Your task to perform on an android device: Open location settings Image 0: 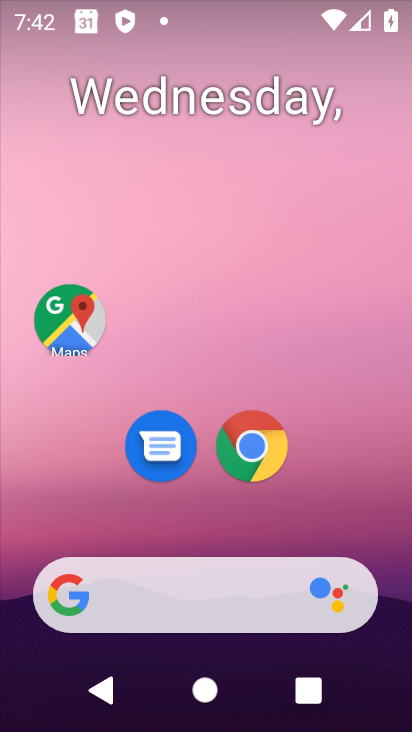
Step 0: drag from (320, 260) to (288, 66)
Your task to perform on an android device: Open location settings Image 1: 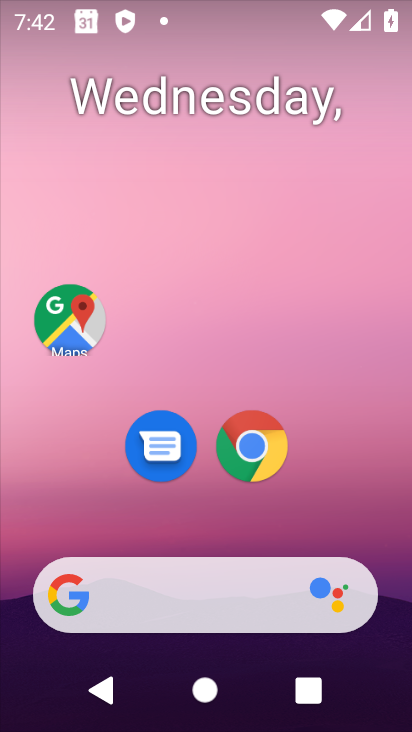
Step 1: drag from (362, 565) to (312, 88)
Your task to perform on an android device: Open location settings Image 2: 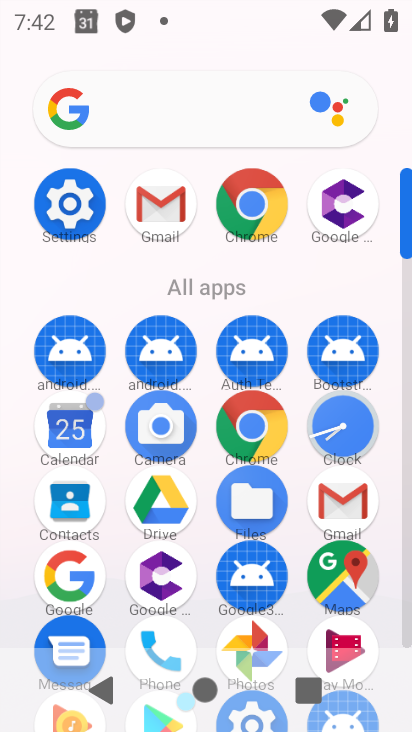
Step 2: click (93, 205)
Your task to perform on an android device: Open location settings Image 3: 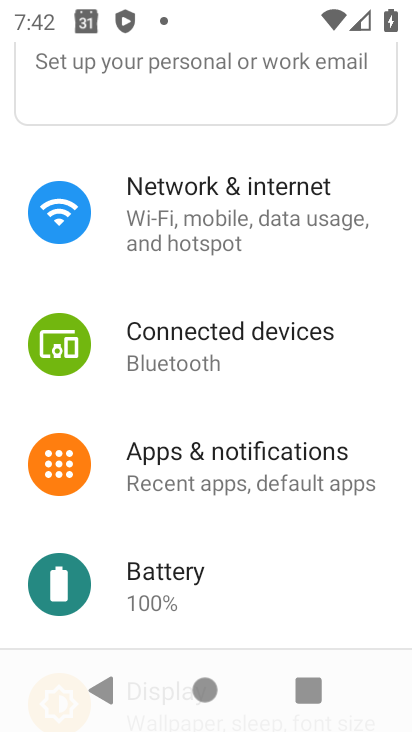
Step 3: drag from (106, 527) to (106, 93)
Your task to perform on an android device: Open location settings Image 4: 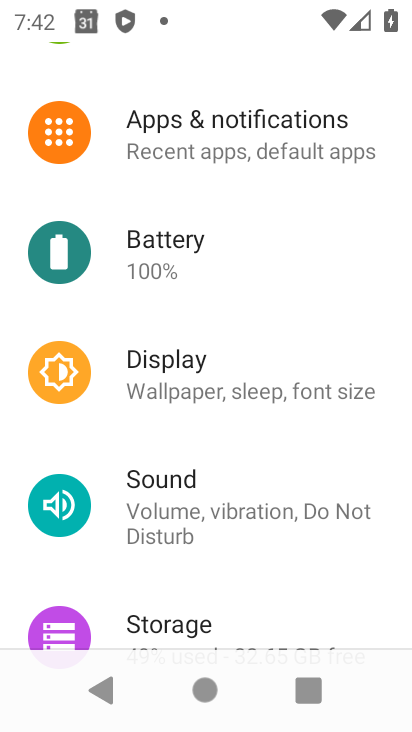
Step 4: drag from (213, 511) to (254, 181)
Your task to perform on an android device: Open location settings Image 5: 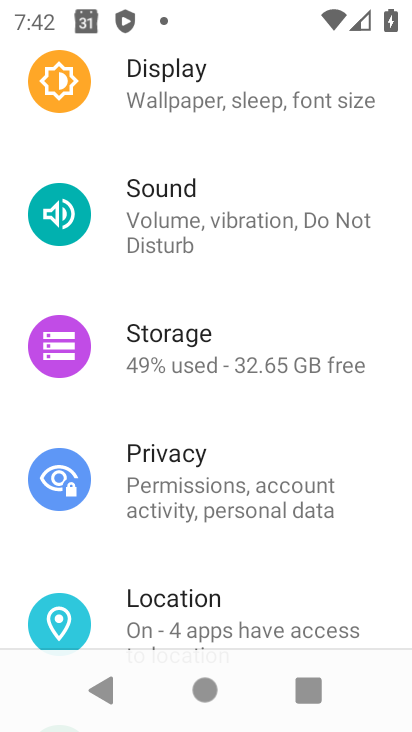
Step 5: drag from (215, 532) to (231, 165)
Your task to perform on an android device: Open location settings Image 6: 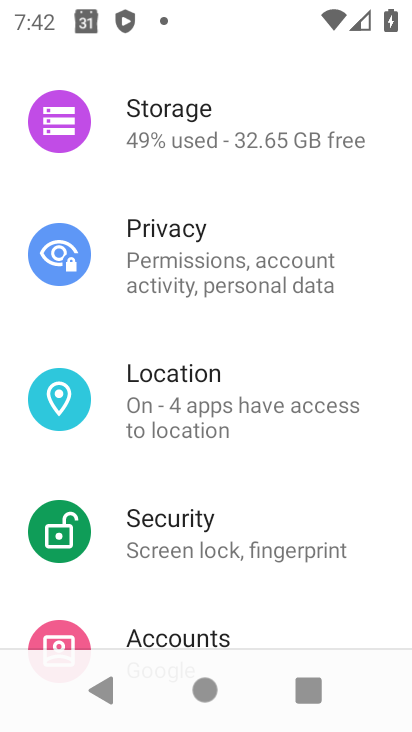
Step 6: click (201, 384)
Your task to perform on an android device: Open location settings Image 7: 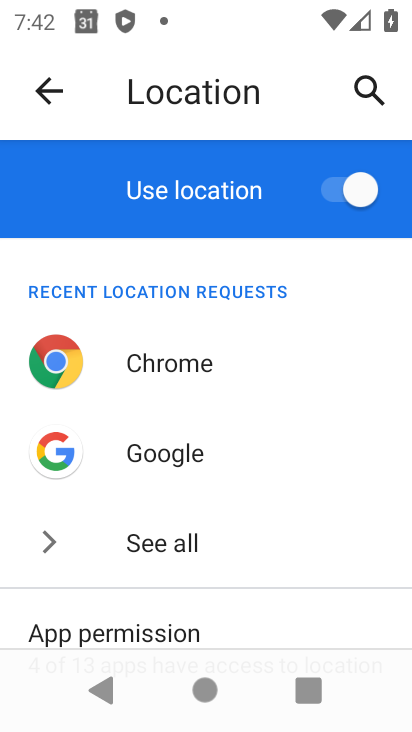
Step 7: drag from (231, 577) to (232, 223)
Your task to perform on an android device: Open location settings Image 8: 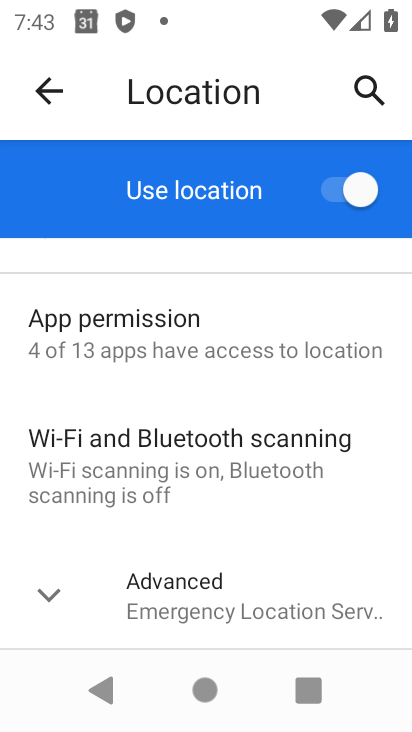
Step 8: drag from (208, 552) to (230, 244)
Your task to perform on an android device: Open location settings Image 9: 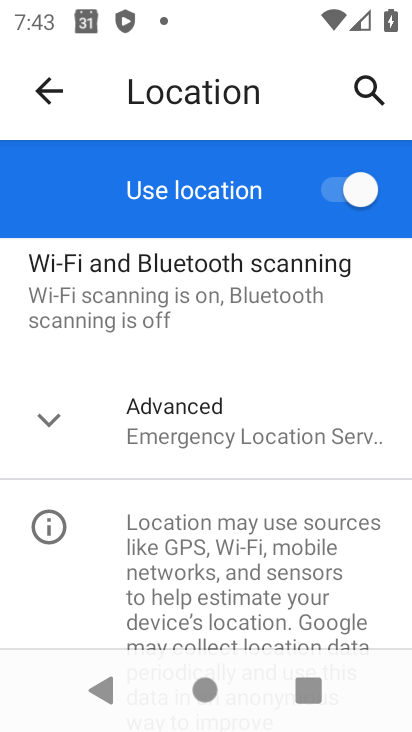
Step 9: click (178, 447)
Your task to perform on an android device: Open location settings Image 10: 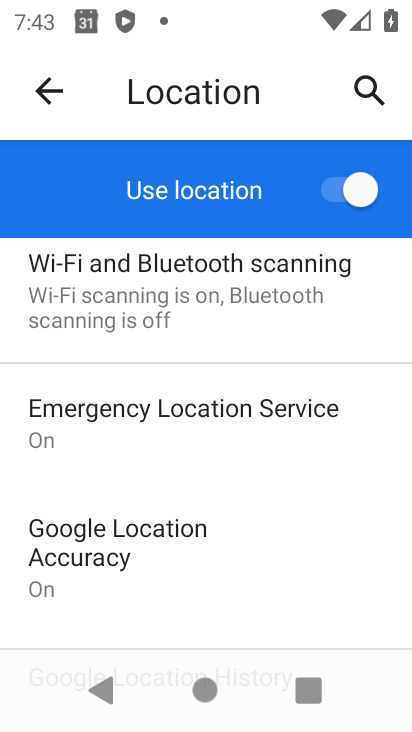
Step 10: task complete